Your task to perform on an android device: change the clock style Image 0: 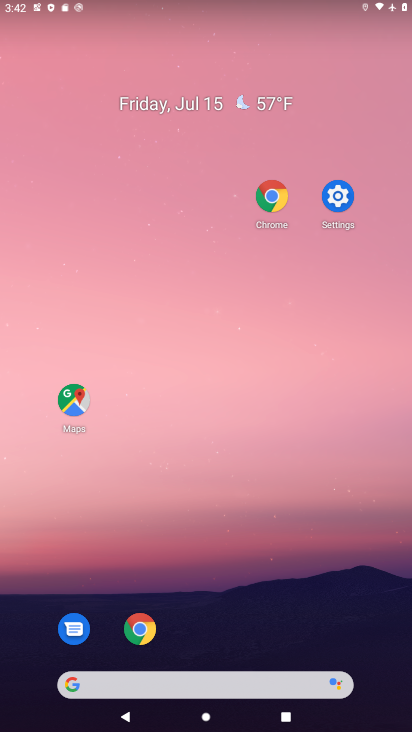
Step 0: drag from (282, 684) to (279, 327)
Your task to perform on an android device: change the clock style Image 1: 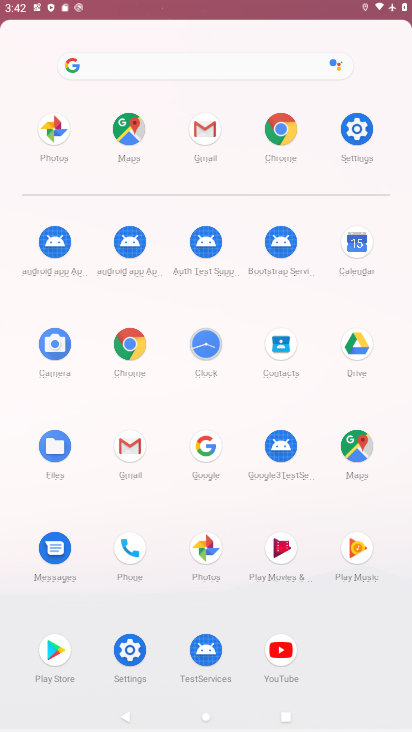
Step 1: drag from (276, 633) to (276, 202)
Your task to perform on an android device: change the clock style Image 2: 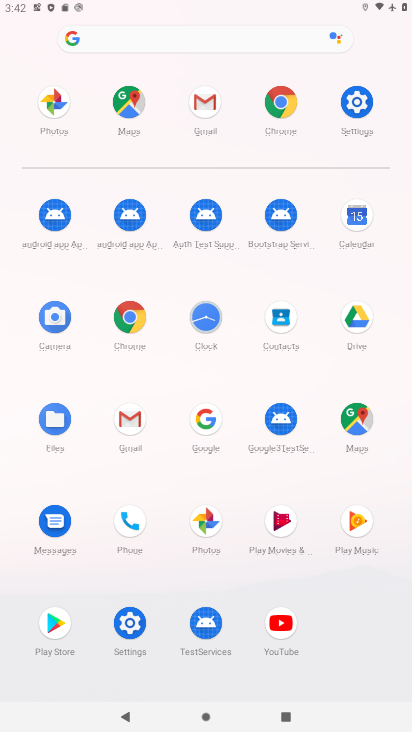
Step 2: click (201, 314)
Your task to perform on an android device: change the clock style Image 3: 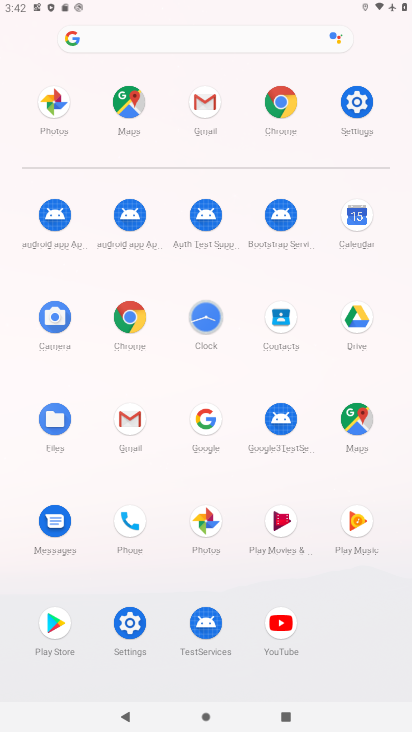
Step 3: click (200, 315)
Your task to perform on an android device: change the clock style Image 4: 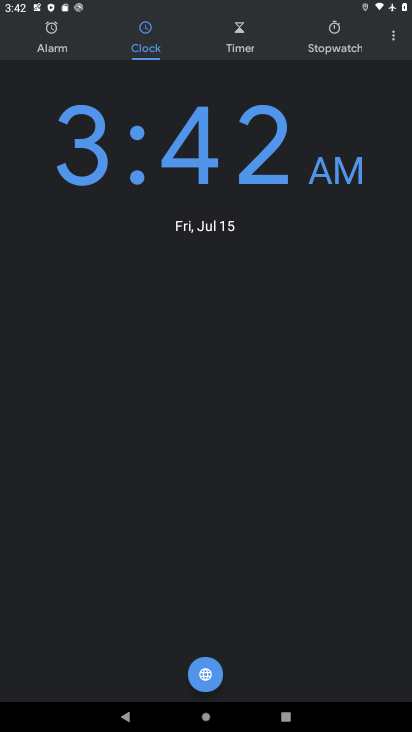
Step 4: click (390, 37)
Your task to perform on an android device: change the clock style Image 5: 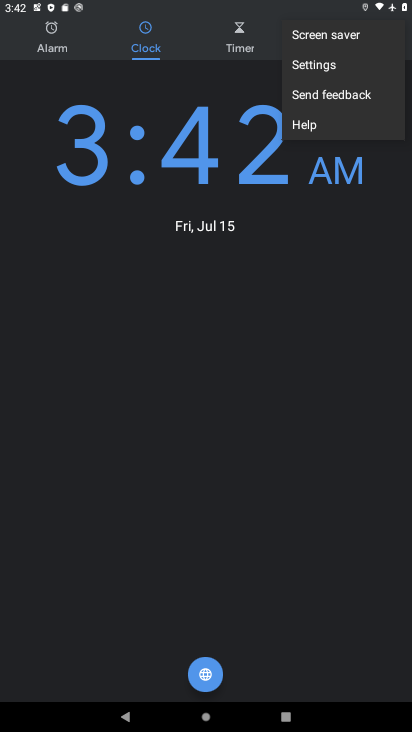
Step 5: click (312, 69)
Your task to perform on an android device: change the clock style Image 6: 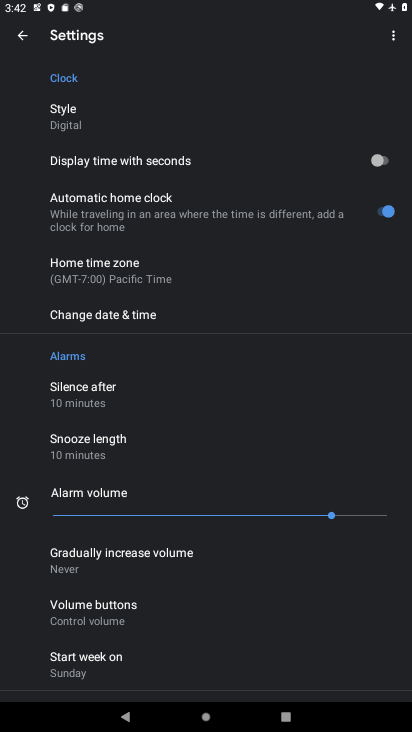
Step 6: click (73, 118)
Your task to perform on an android device: change the clock style Image 7: 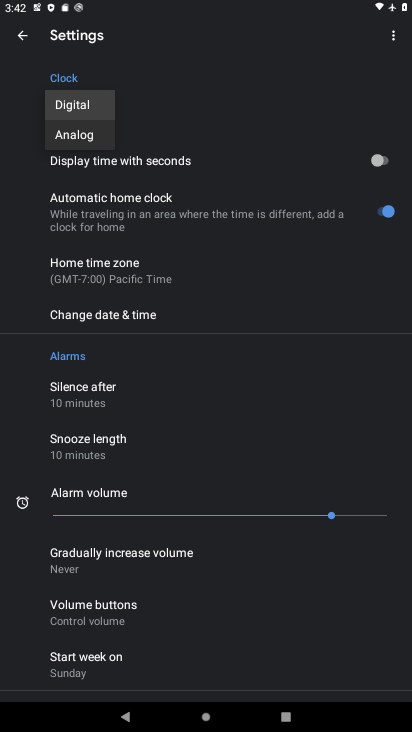
Step 7: click (83, 137)
Your task to perform on an android device: change the clock style Image 8: 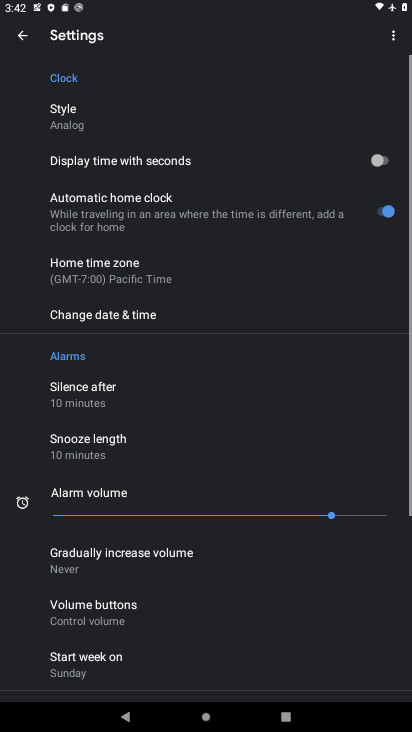
Step 8: task complete